Your task to perform on an android device: open a new tab in the chrome app Image 0: 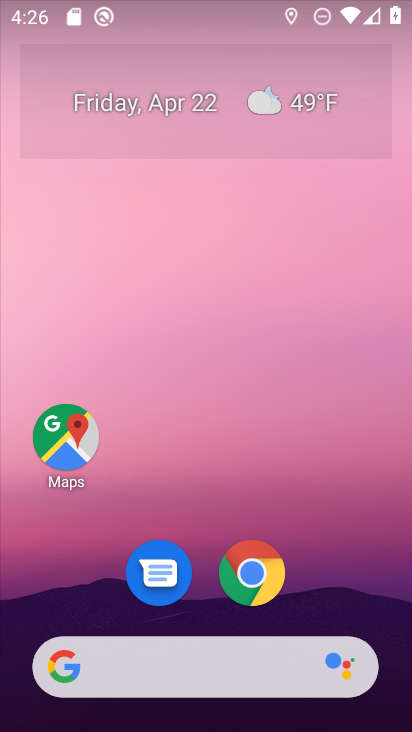
Step 0: click (240, 577)
Your task to perform on an android device: open a new tab in the chrome app Image 1: 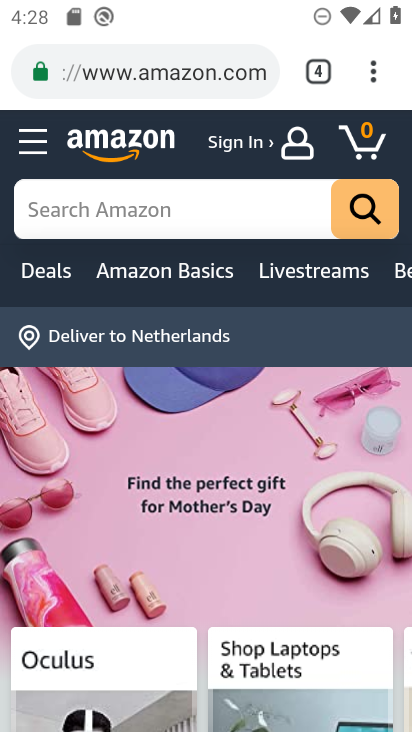
Step 1: click (325, 67)
Your task to perform on an android device: open a new tab in the chrome app Image 2: 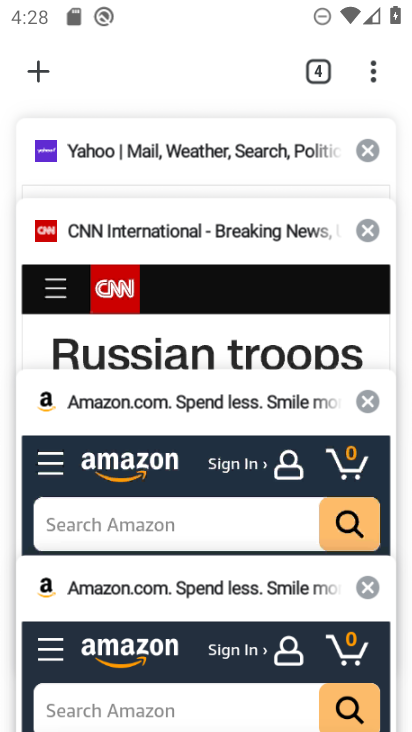
Step 2: click (31, 71)
Your task to perform on an android device: open a new tab in the chrome app Image 3: 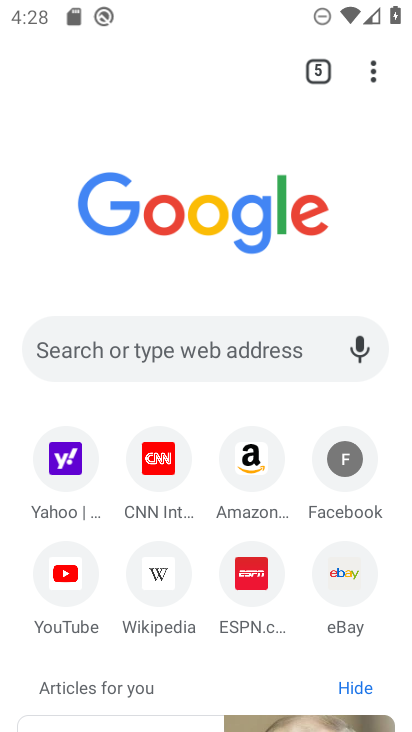
Step 3: task complete